Your task to perform on an android device: Open Youtube and go to the subscriptions tab Image 0: 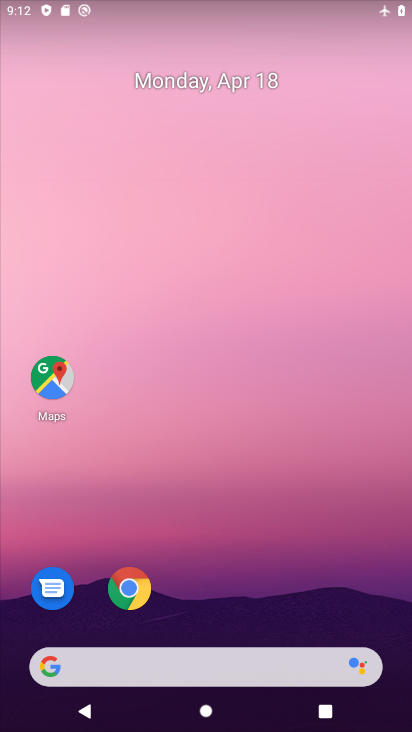
Step 0: drag from (220, 635) to (286, 222)
Your task to perform on an android device: Open Youtube and go to the subscriptions tab Image 1: 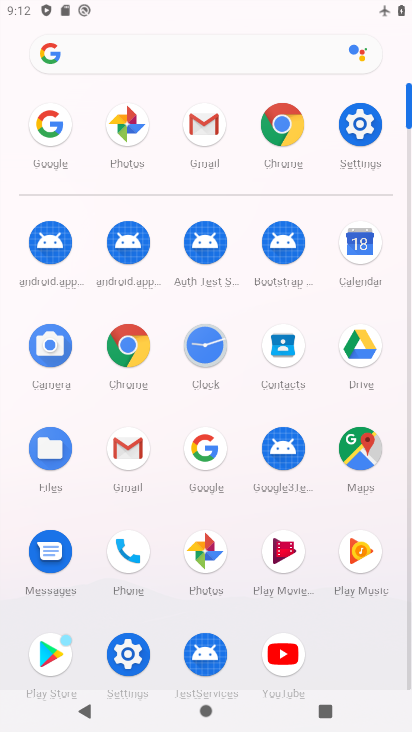
Step 1: click (278, 646)
Your task to perform on an android device: Open Youtube and go to the subscriptions tab Image 2: 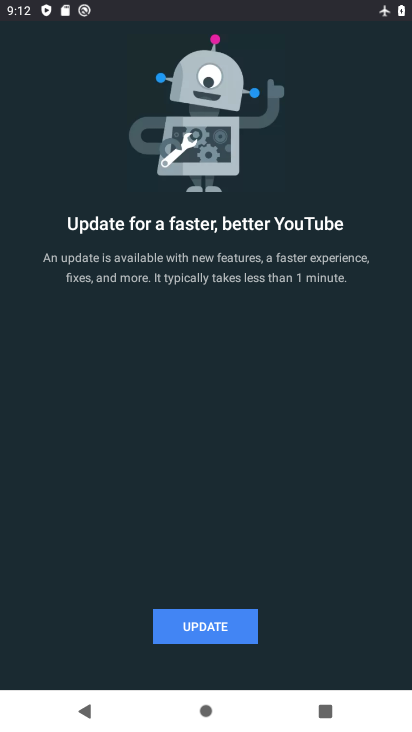
Step 2: click (223, 624)
Your task to perform on an android device: Open Youtube and go to the subscriptions tab Image 3: 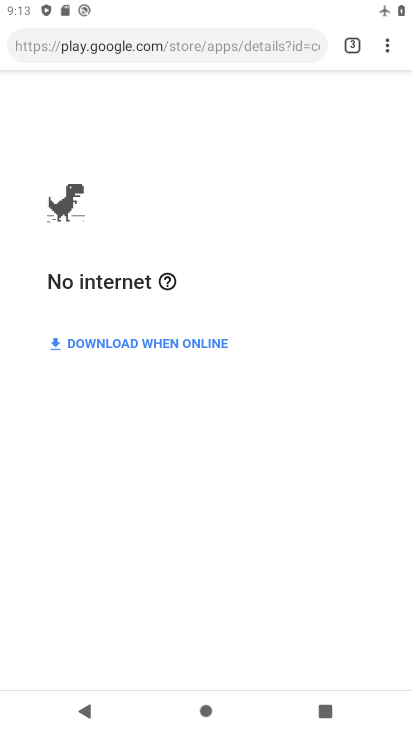
Step 3: press home button
Your task to perform on an android device: Open Youtube and go to the subscriptions tab Image 4: 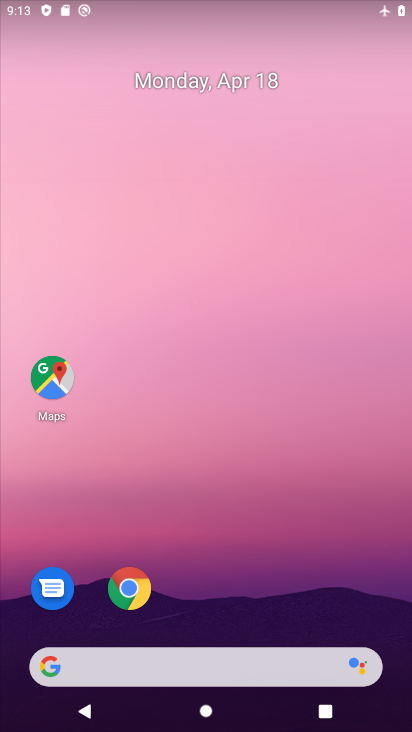
Step 4: drag from (259, 602) to (305, 151)
Your task to perform on an android device: Open Youtube and go to the subscriptions tab Image 5: 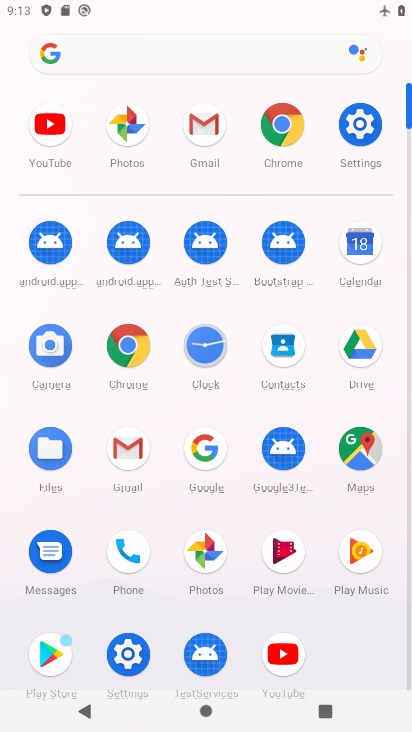
Step 5: click (290, 651)
Your task to perform on an android device: Open Youtube and go to the subscriptions tab Image 6: 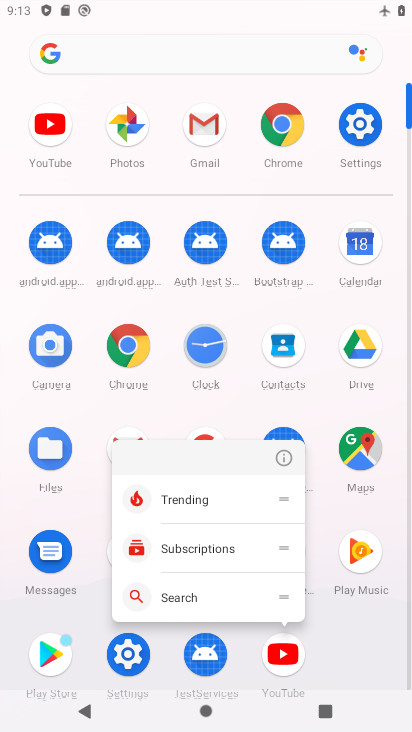
Step 6: click (203, 552)
Your task to perform on an android device: Open Youtube and go to the subscriptions tab Image 7: 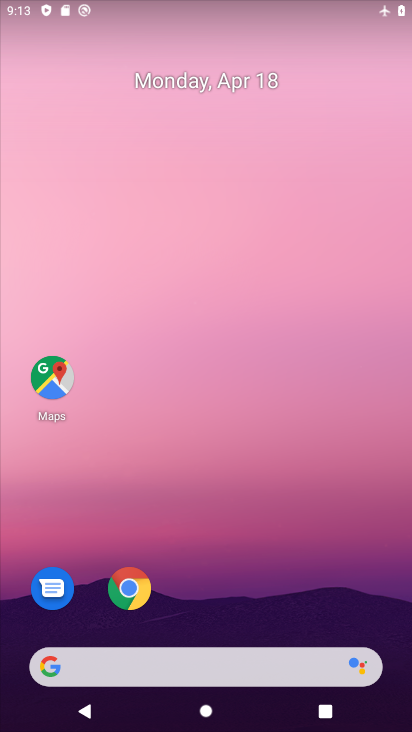
Step 7: click (280, 546)
Your task to perform on an android device: Open Youtube and go to the subscriptions tab Image 8: 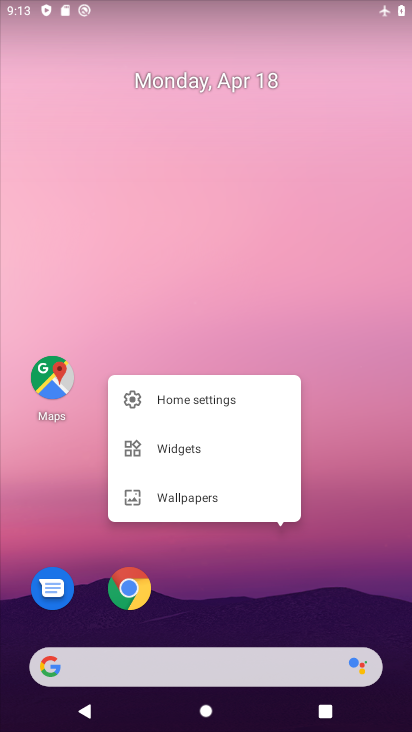
Step 8: task complete